Your task to perform on an android device: see creations saved in the google photos Image 0: 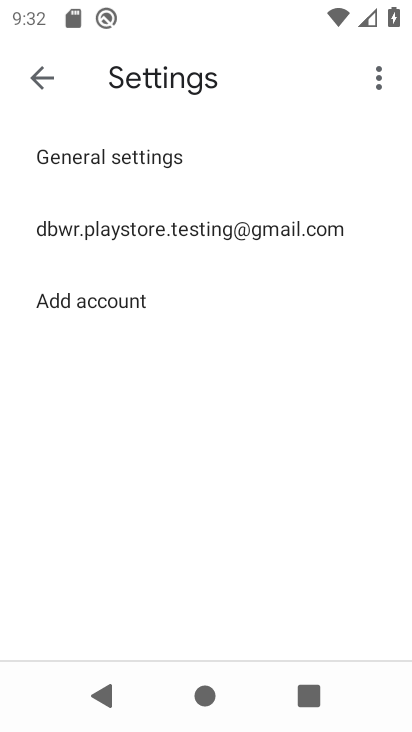
Step 0: press home button
Your task to perform on an android device: see creations saved in the google photos Image 1: 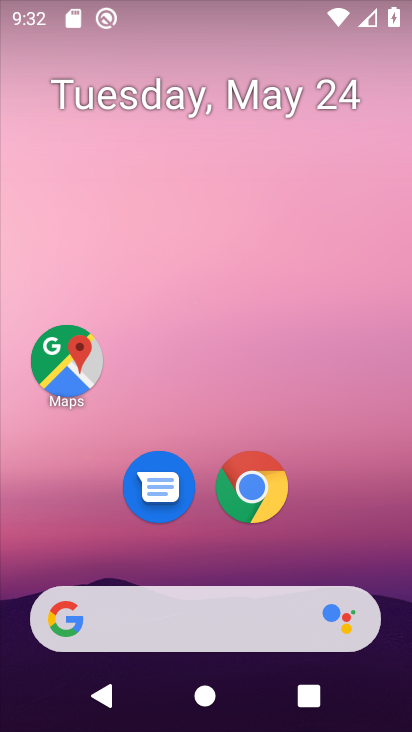
Step 1: drag from (176, 606) to (235, 170)
Your task to perform on an android device: see creations saved in the google photos Image 2: 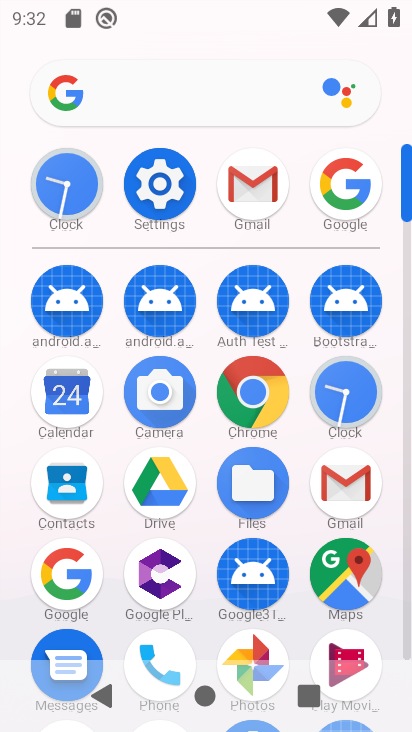
Step 2: drag from (192, 555) to (314, 140)
Your task to perform on an android device: see creations saved in the google photos Image 3: 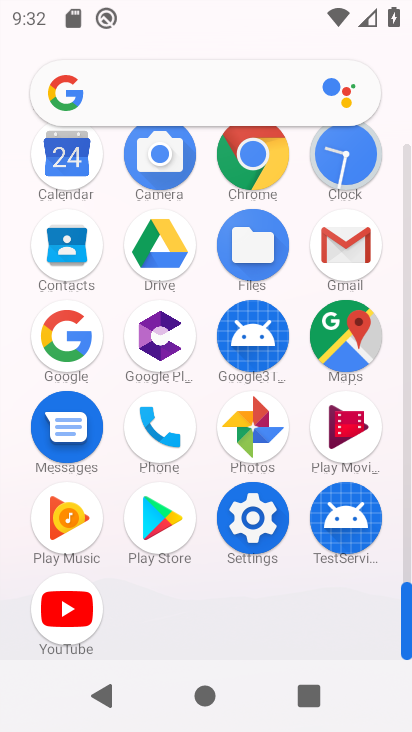
Step 3: click (253, 433)
Your task to perform on an android device: see creations saved in the google photos Image 4: 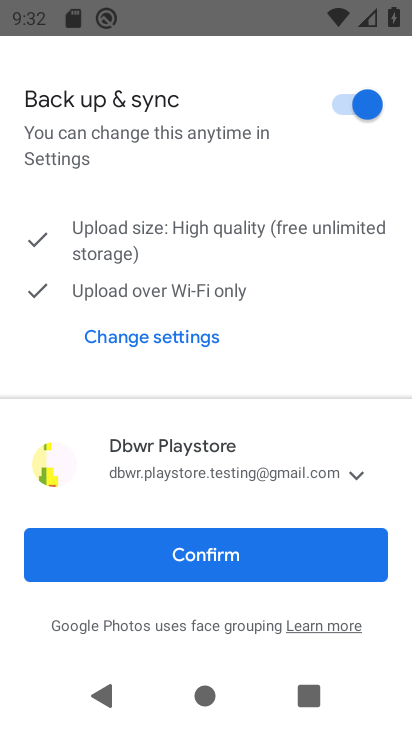
Step 4: click (213, 553)
Your task to perform on an android device: see creations saved in the google photos Image 5: 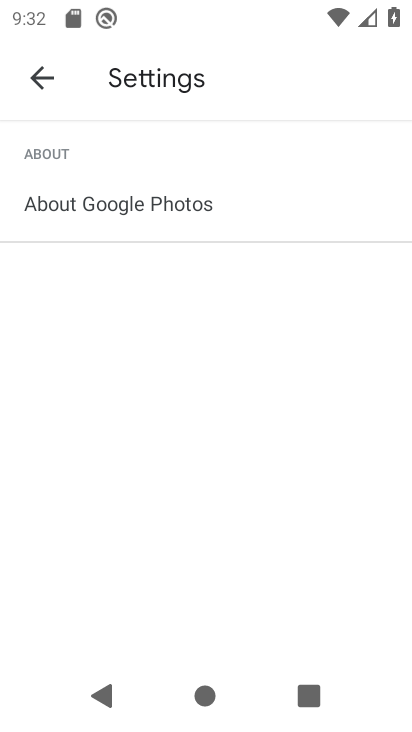
Step 5: click (41, 79)
Your task to perform on an android device: see creations saved in the google photos Image 6: 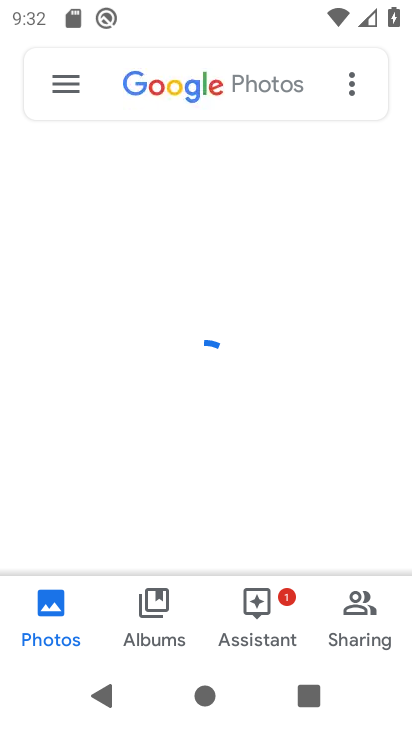
Step 6: click (154, 607)
Your task to perform on an android device: see creations saved in the google photos Image 7: 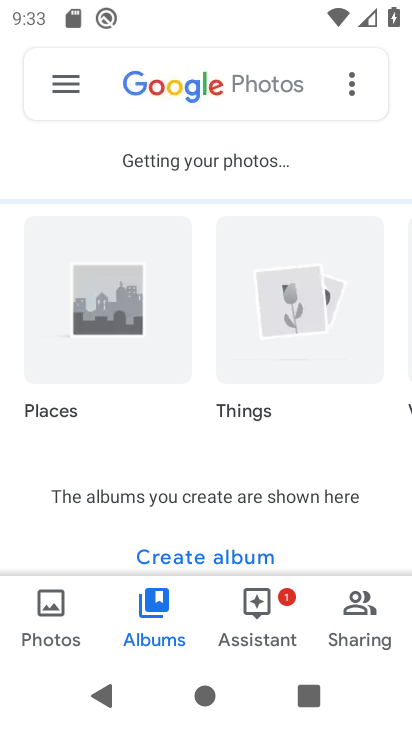
Step 7: click (157, 82)
Your task to perform on an android device: see creations saved in the google photos Image 8: 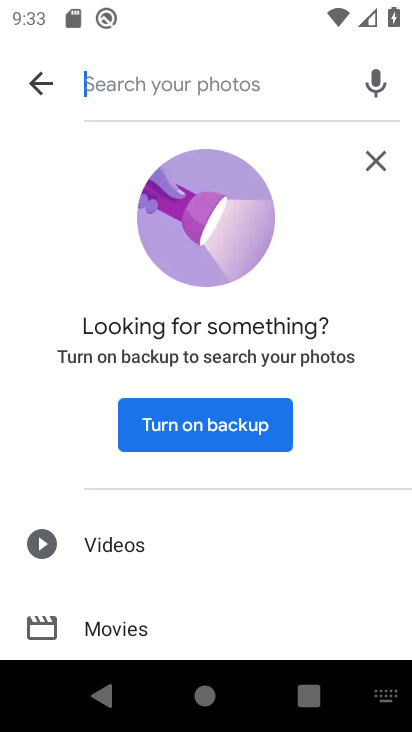
Step 8: drag from (179, 572) to (251, 368)
Your task to perform on an android device: see creations saved in the google photos Image 9: 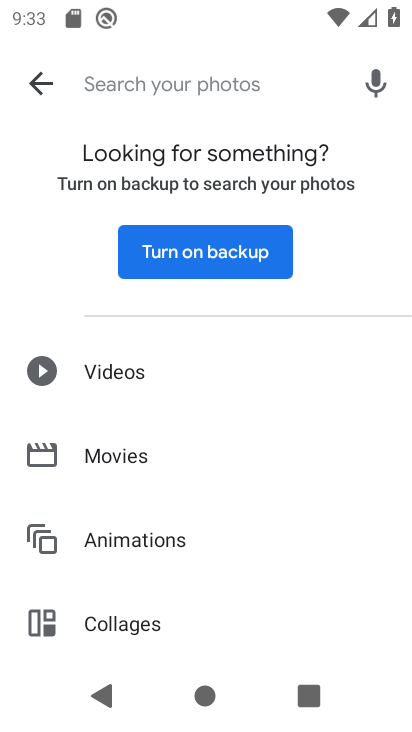
Step 9: drag from (221, 599) to (283, 20)
Your task to perform on an android device: see creations saved in the google photos Image 10: 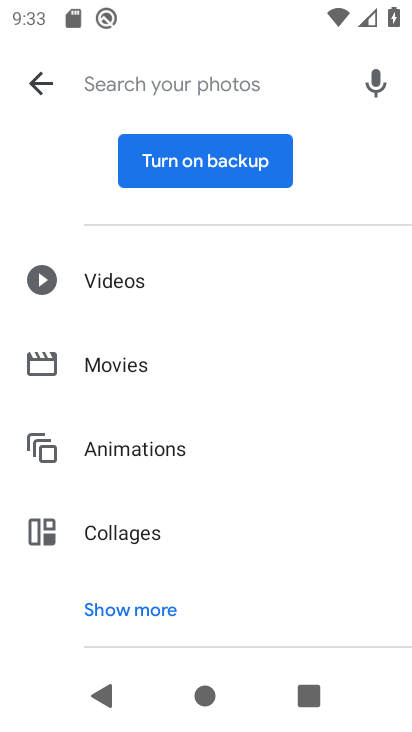
Step 10: click (135, 603)
Your task to perform on an android device: see creations saved in the google photos Image 11: 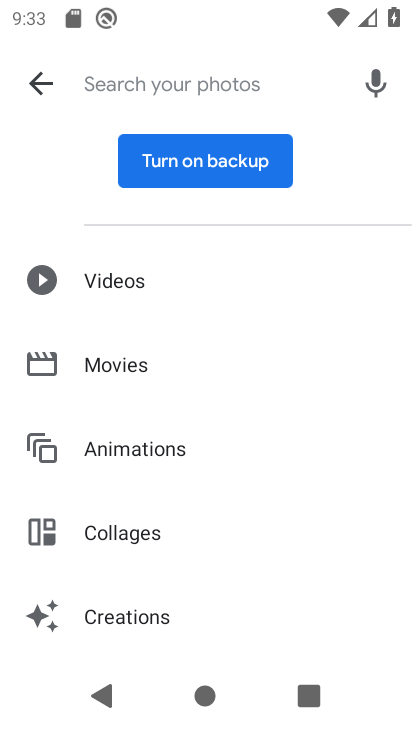
Step 11: click (143, 619)
Your task to perform on an android device: see creations saved in the google photos Image 12: 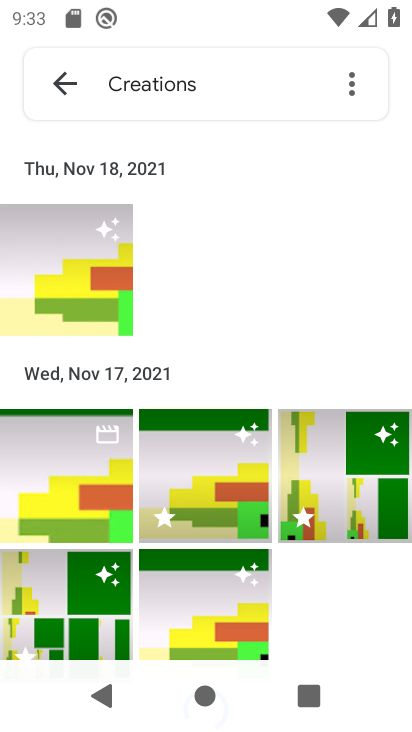
Step 12: task complete